Your task to perform on an android device: open app "NewsBreak: Local News & Alerts" (install if not already installed) Image 0: 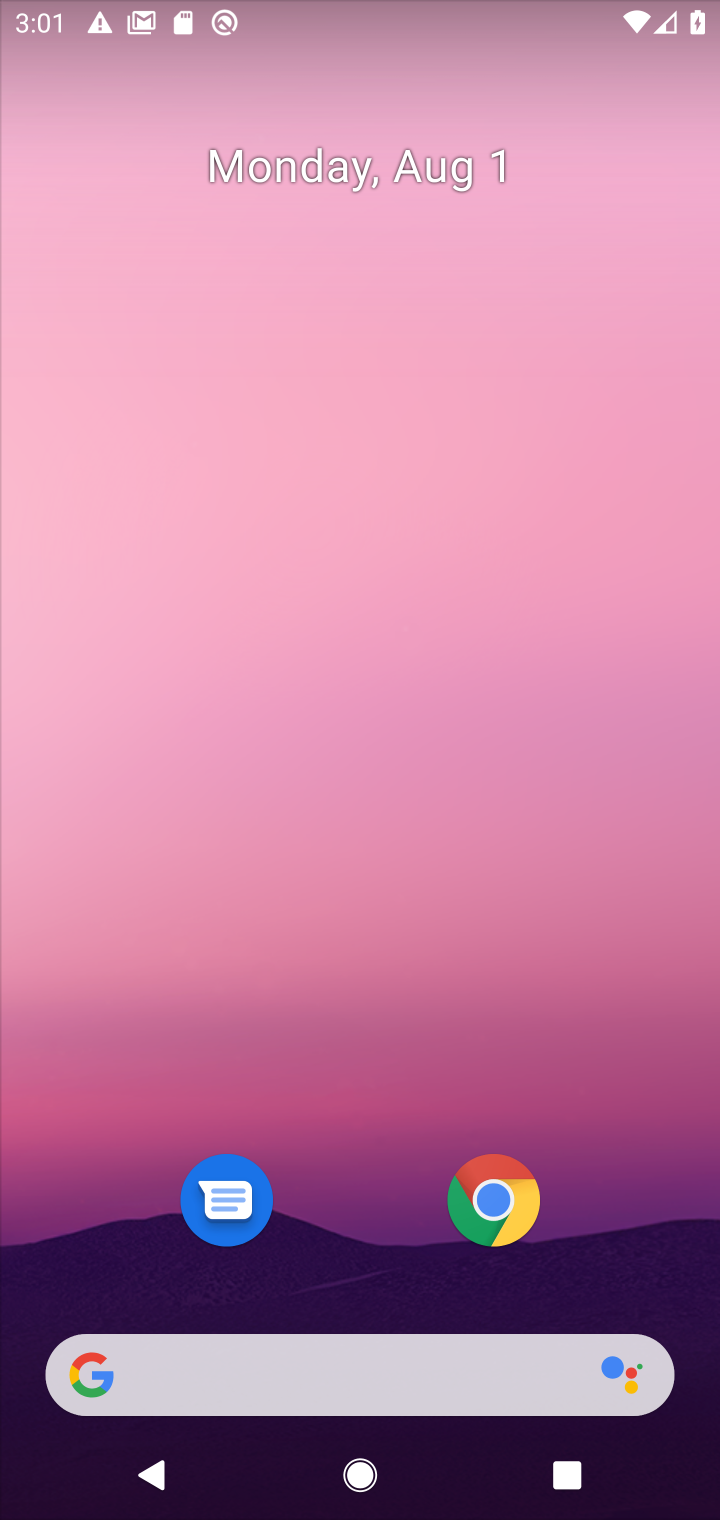
Step 0: click (45, 90)
Your task to perform on an android device: open app "NewsBreak: Local News & Alerts" (install if not already installed) Image 1: 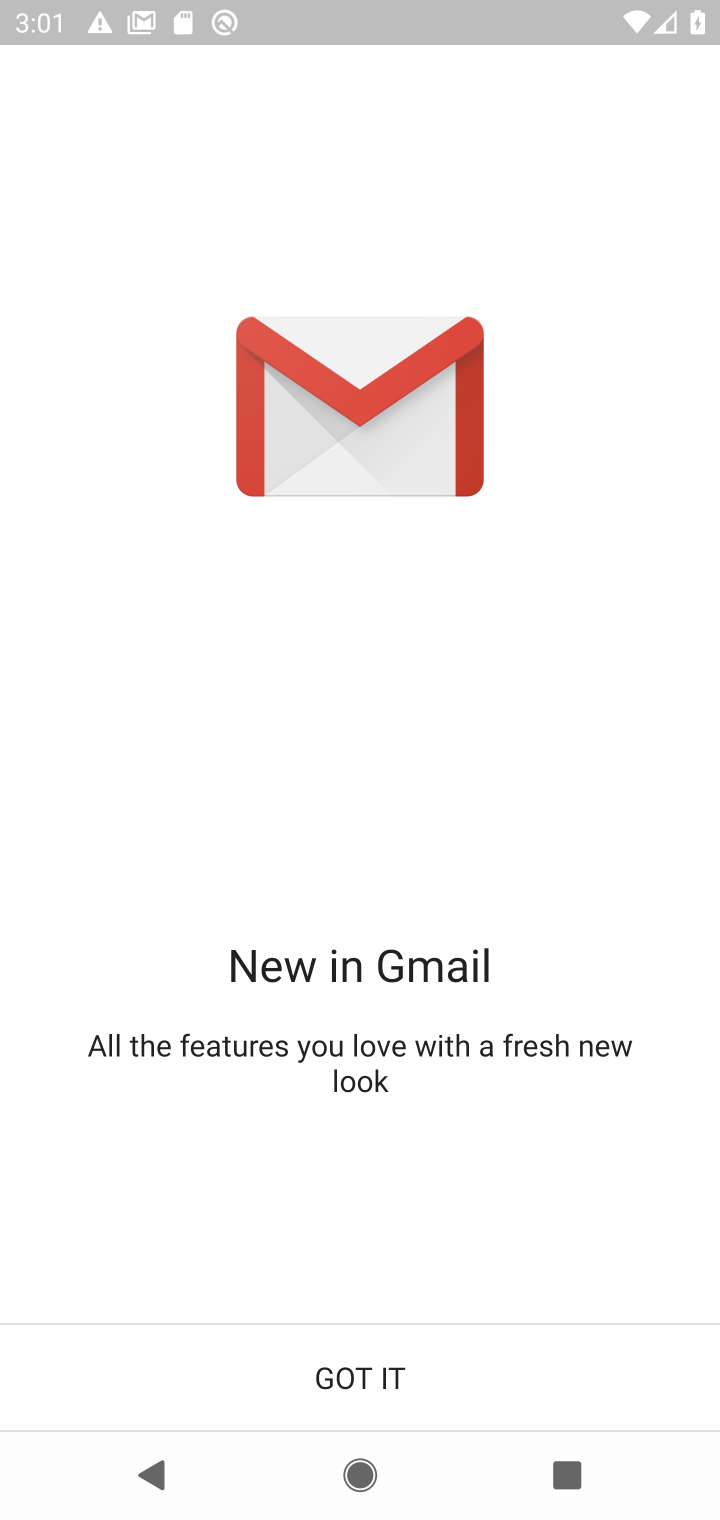
Step 1: press home button
Your task to perform on an android device: open app "NewsBreak: Local News & Alerts" (install if not already installed) Image 2: 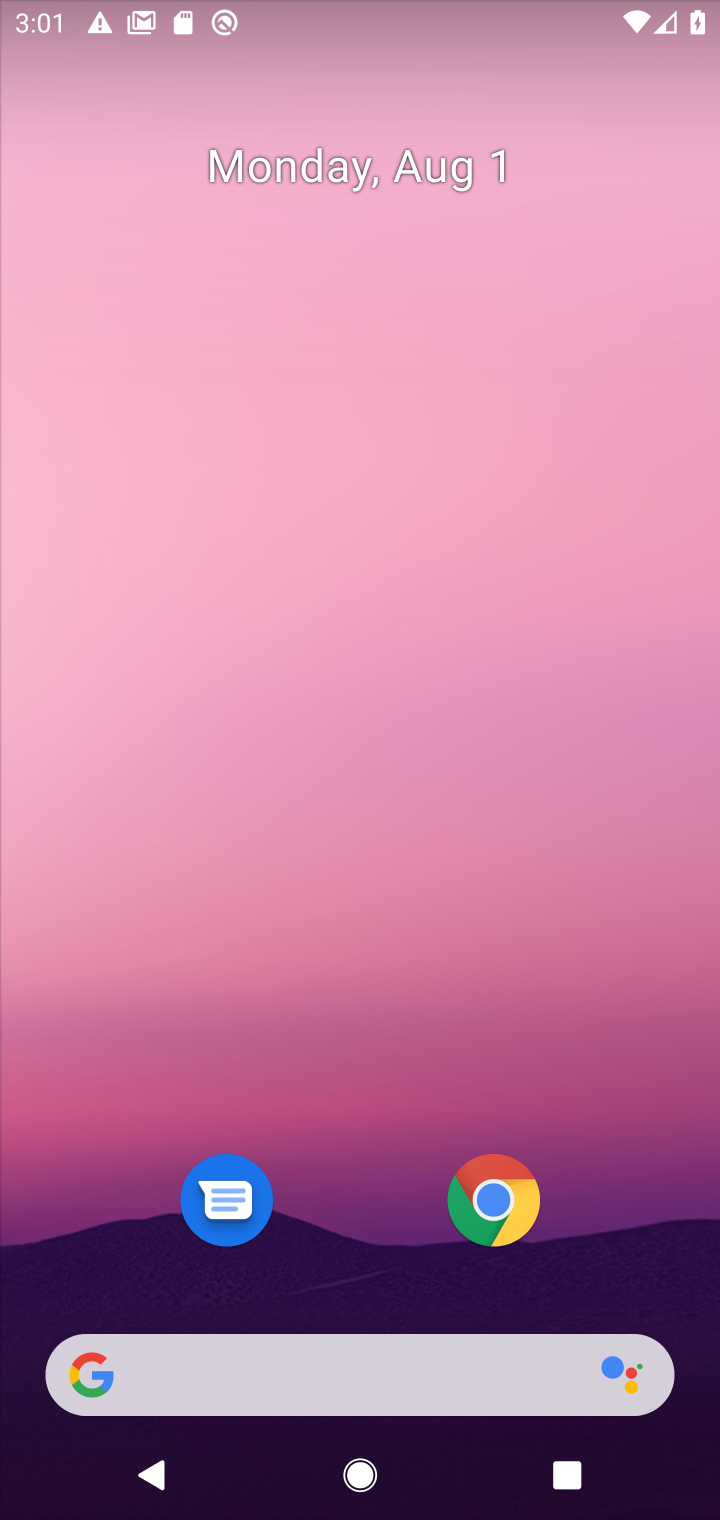
Step 2: drag from (338, 1042) to (363, 304)
Your task to perform on an android device: open app "NewsBreak: Local News & Alerts" (install if not already installed) Image 3: 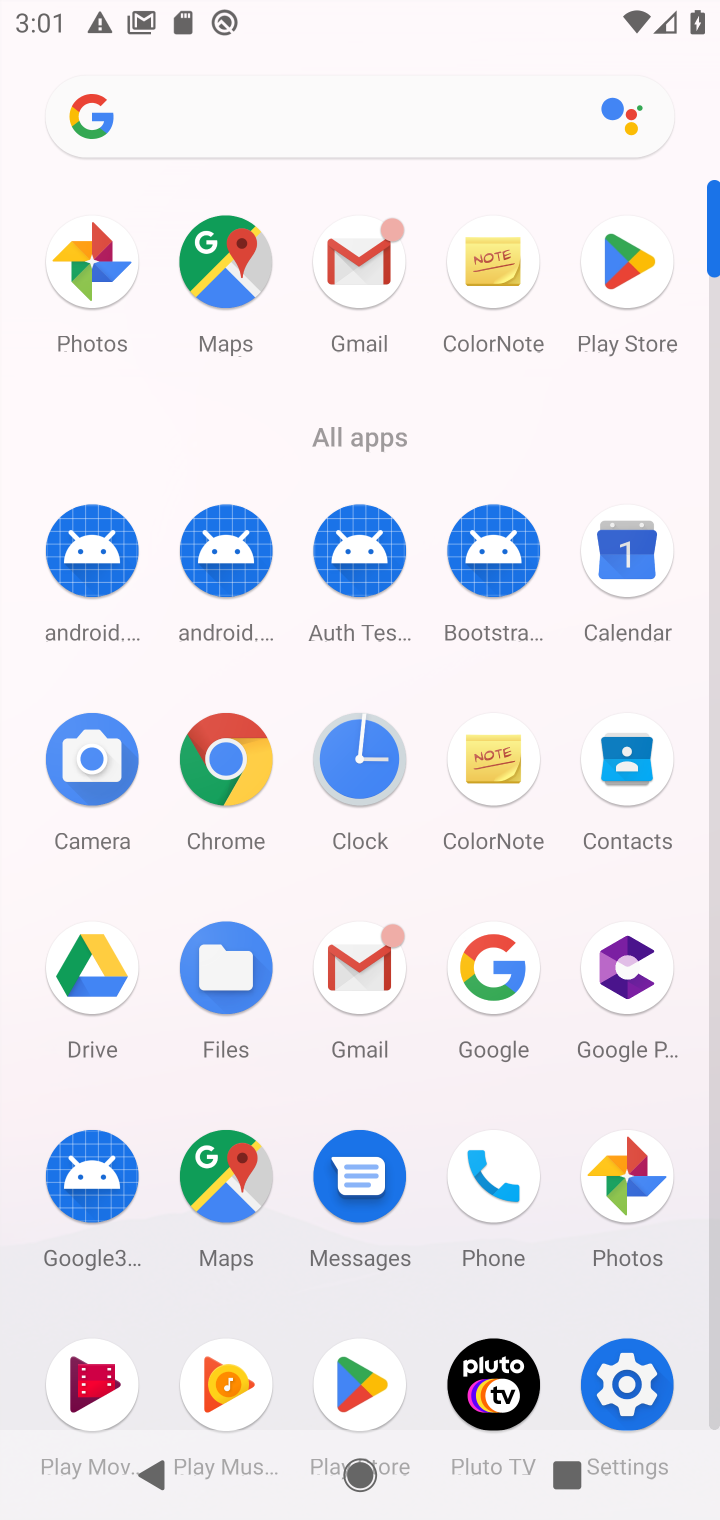
Step 3: click (636, 286)
Your task to perform on an android device: open app "NewsBreak: Local News & Alerts" (install if not already installed) Image 4: 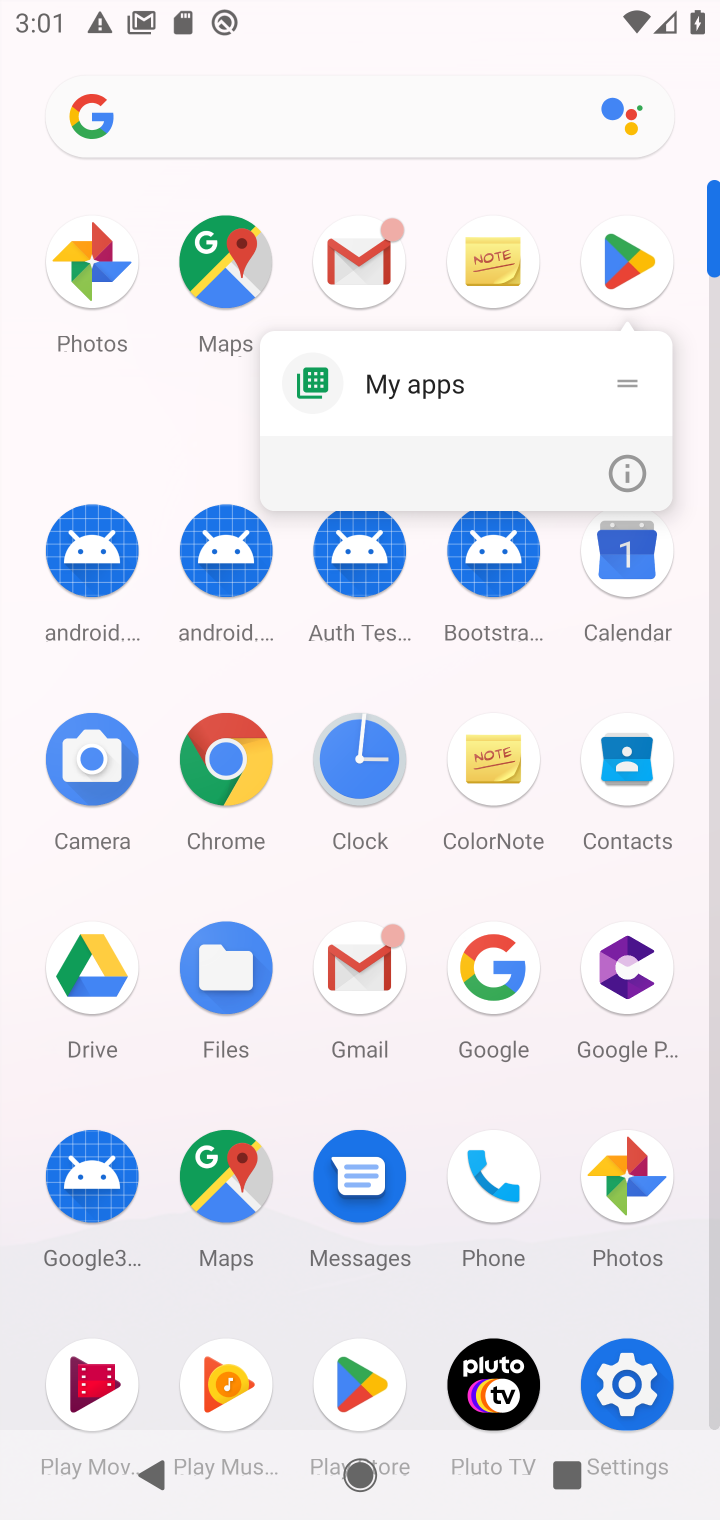
Step 4: click (638, 288)
Your task to perform on an android device: open app "NewsBreak: Local News & Alerts" (install if not already installed) Image 5: 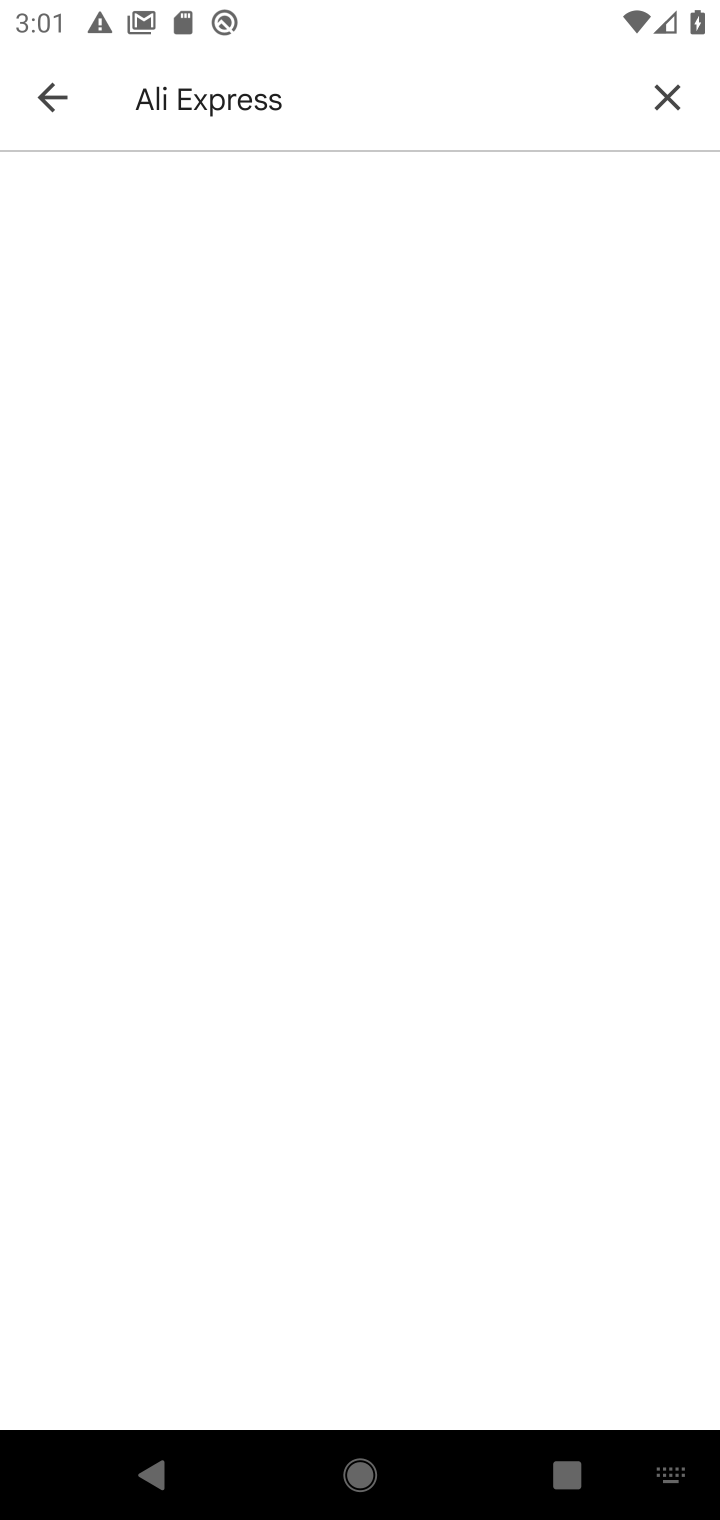
Step 5: click (363, 99)
Your task to perform on an android device: open app "NewsBreak: Local News & Alerts" (install if not already installed) Image 6: 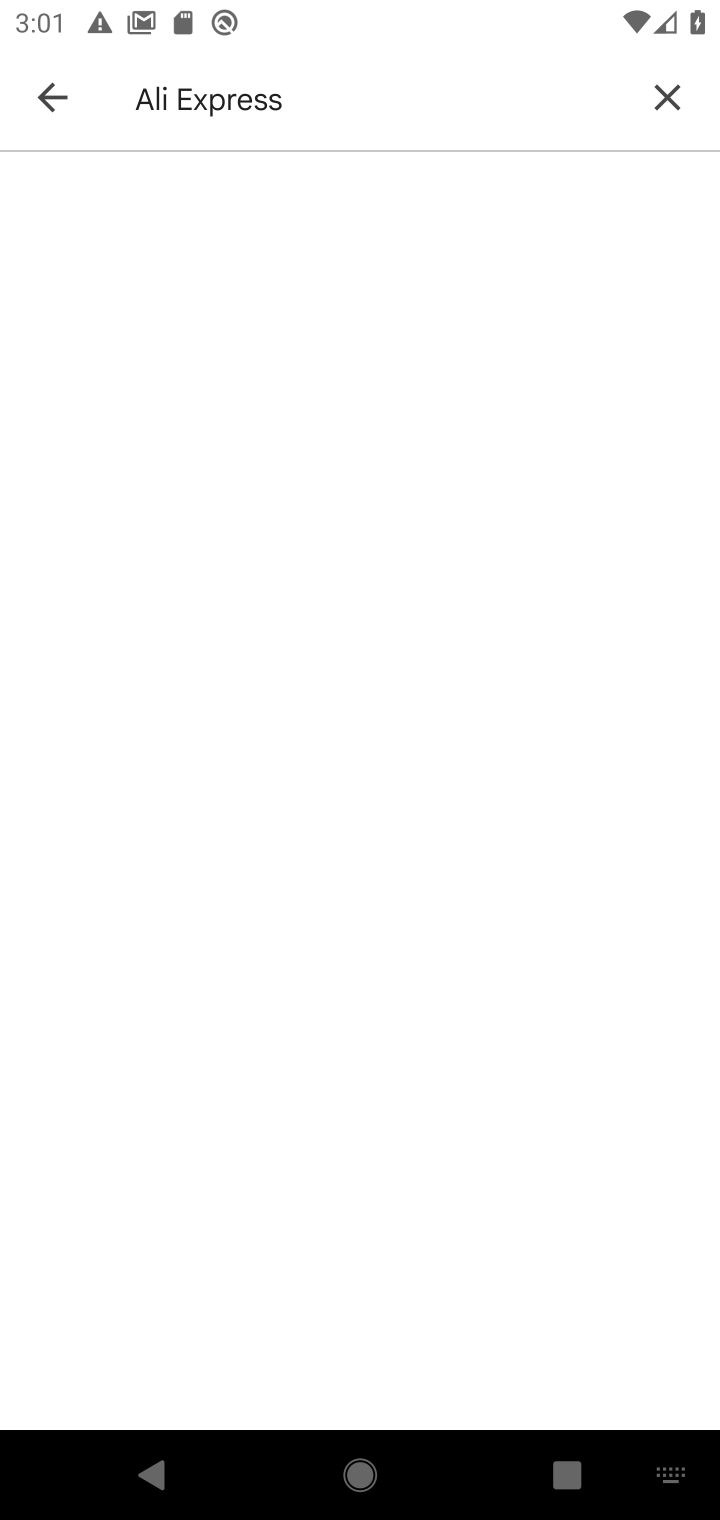
Step 6: click (665, 87)
Your task to perform on an android device: open app "NewsBreak: Local News & Alerts" (install if not already installed) Image 7: 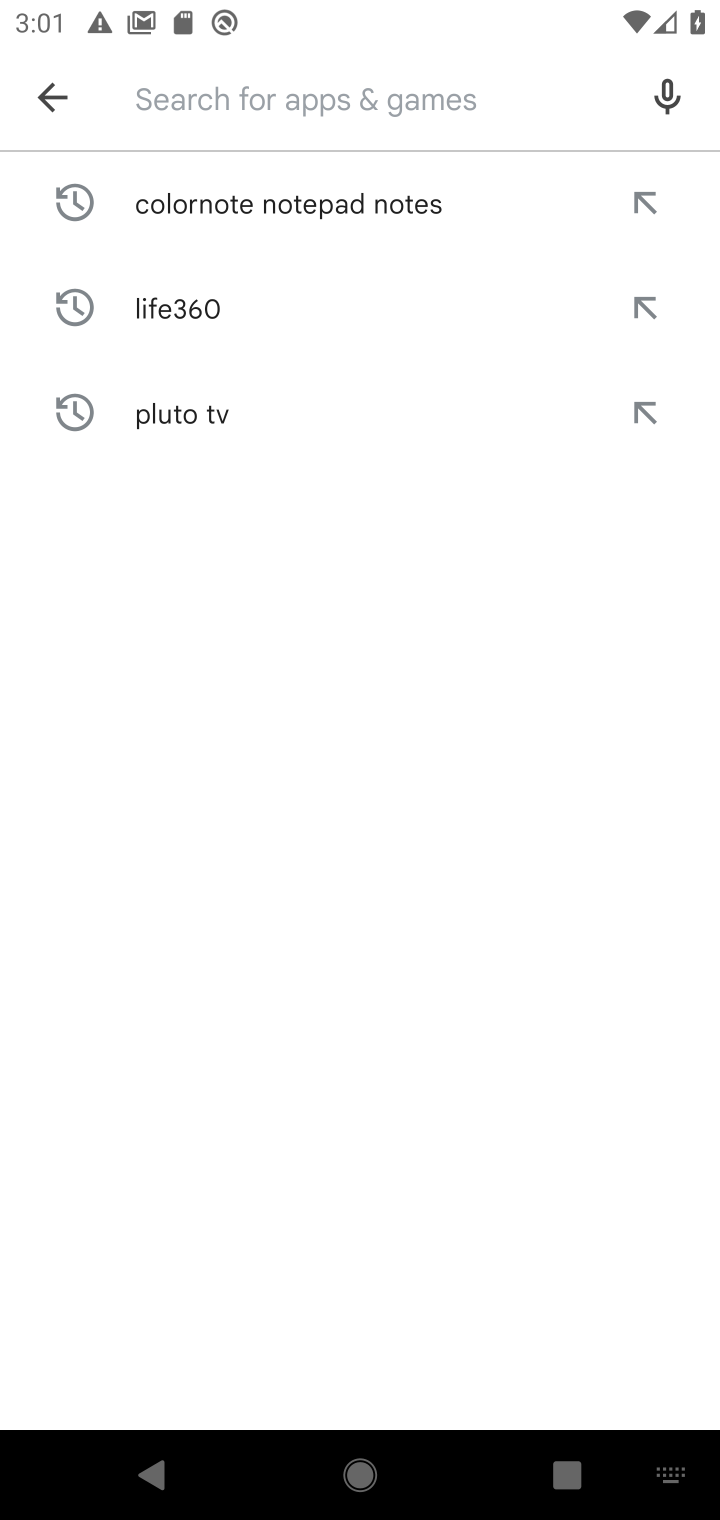
Step 7: type "newsbreak"
Your task to perform on an android device: open app "NewsBreak: Local News & Alerts" (install if not already installed) Image 8: 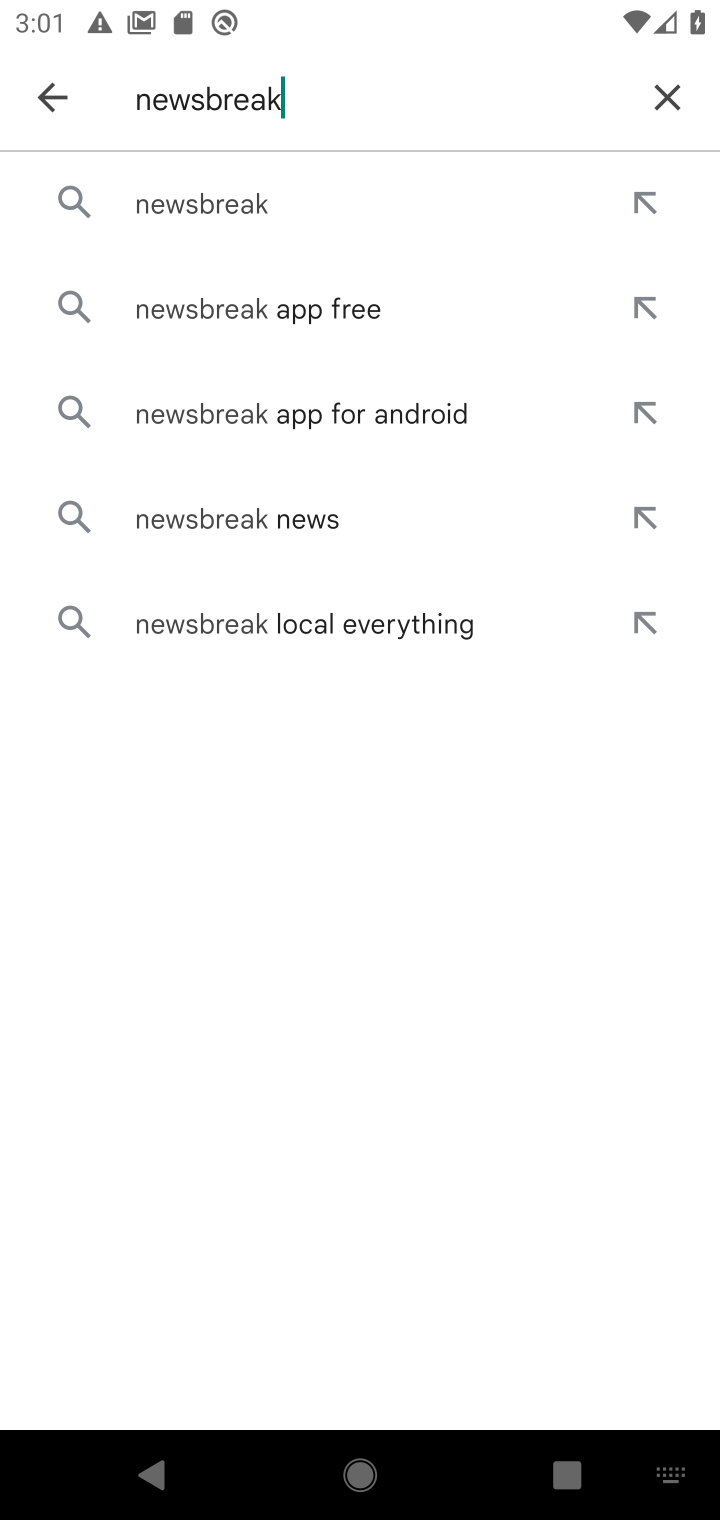
Step 8: click (217, 216)
Your task to perform on an android device: open app "NewsBreak: Local News & Alerts" (install if not already installed) Image 9: 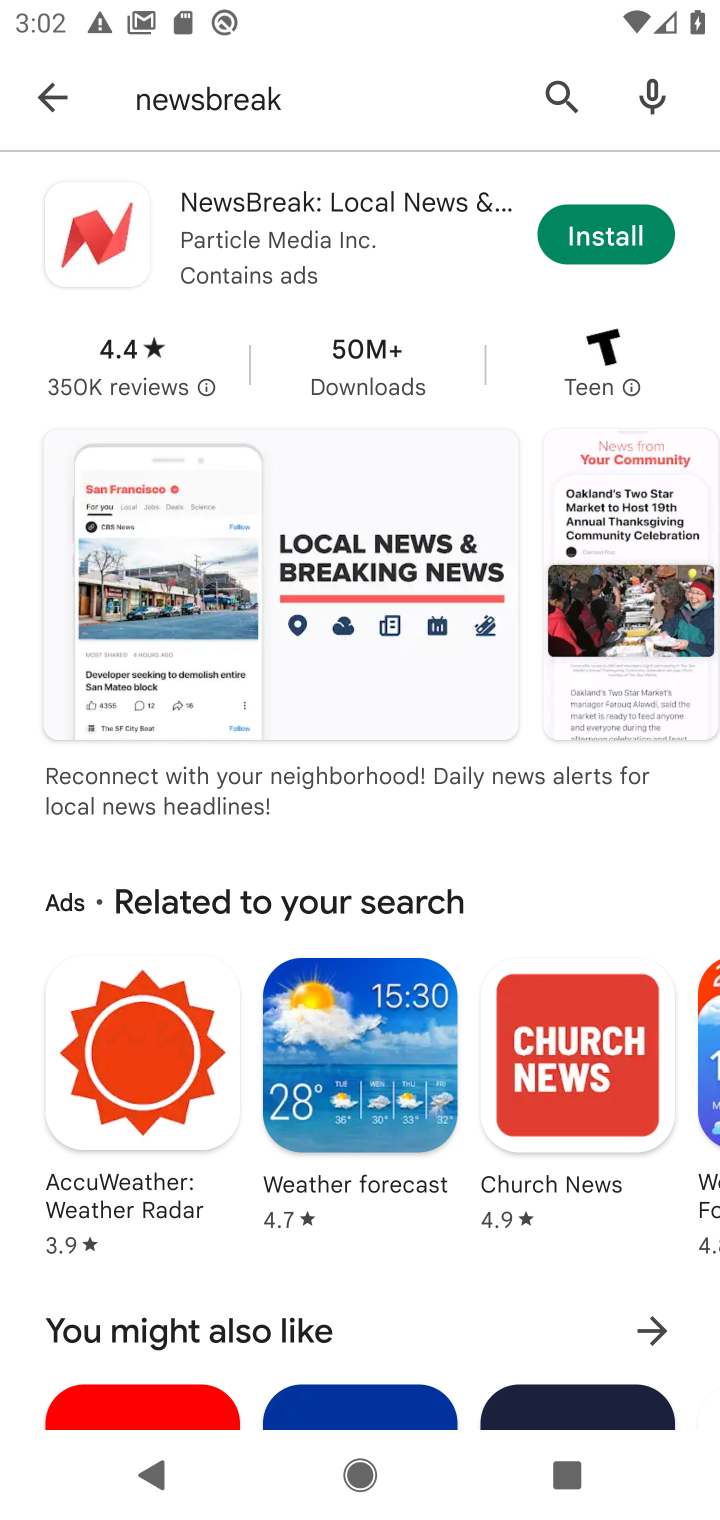
Step 9: click (624, 222)
Your task to perform on an android device: open app "NewsBreak: Local News & Alerts" (install if not already installed) Image 10: 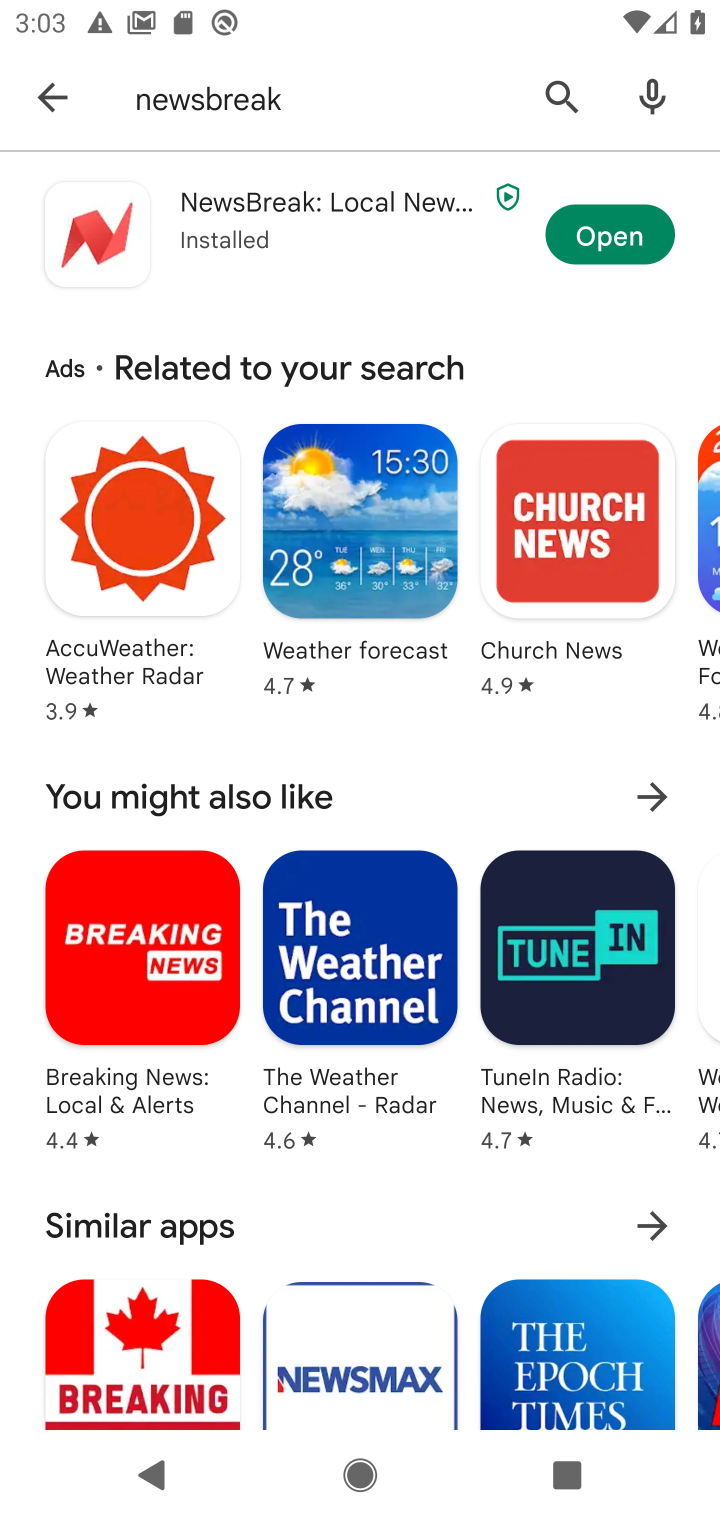
Step 10: click (601, 218)
Your task to perform on an android device: open app "NewsBreak: Local News & Alerts" (install if not already installed) Image 11: 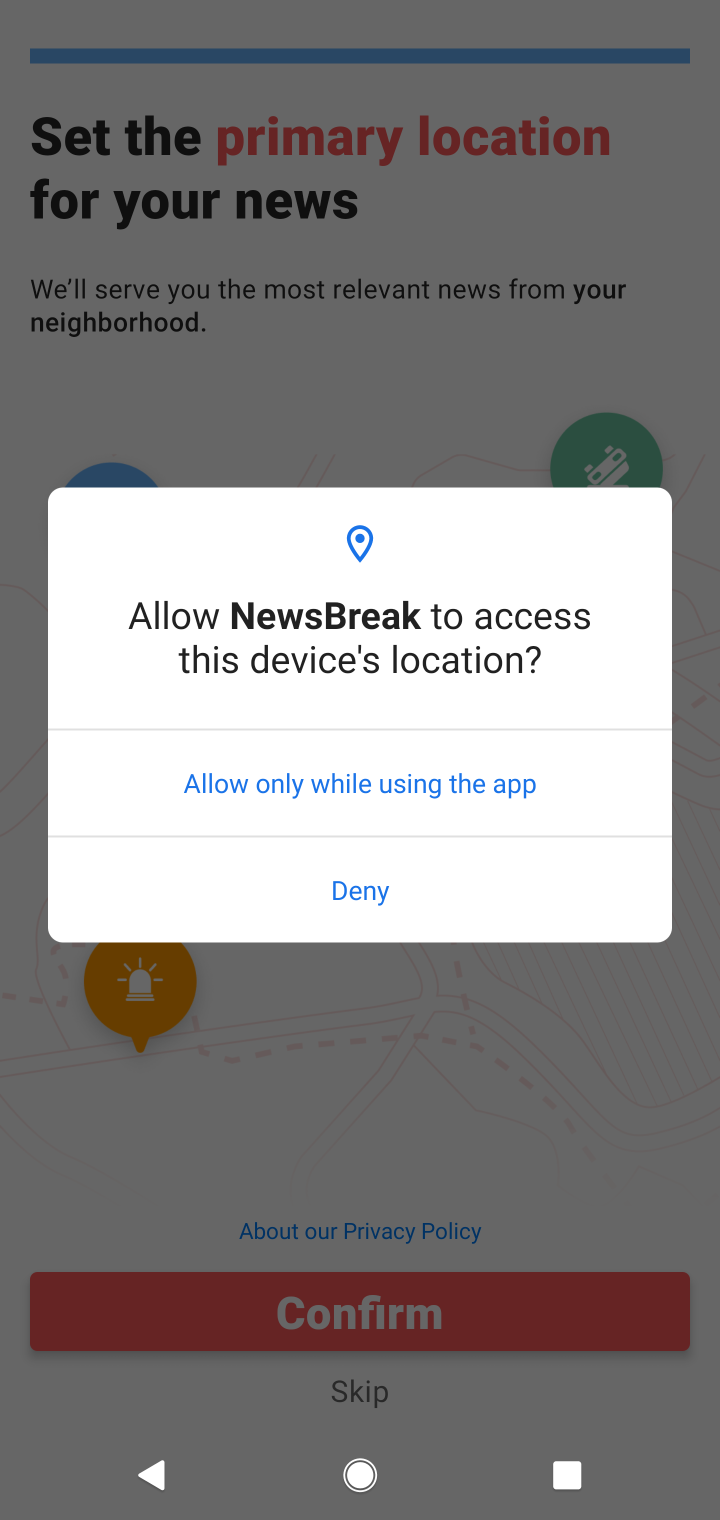
Step 11: click (400, 768)
Your task to perform on an android device: open app "NewsBreak: Local News & Alerts" (install if not already installed) Image 12: 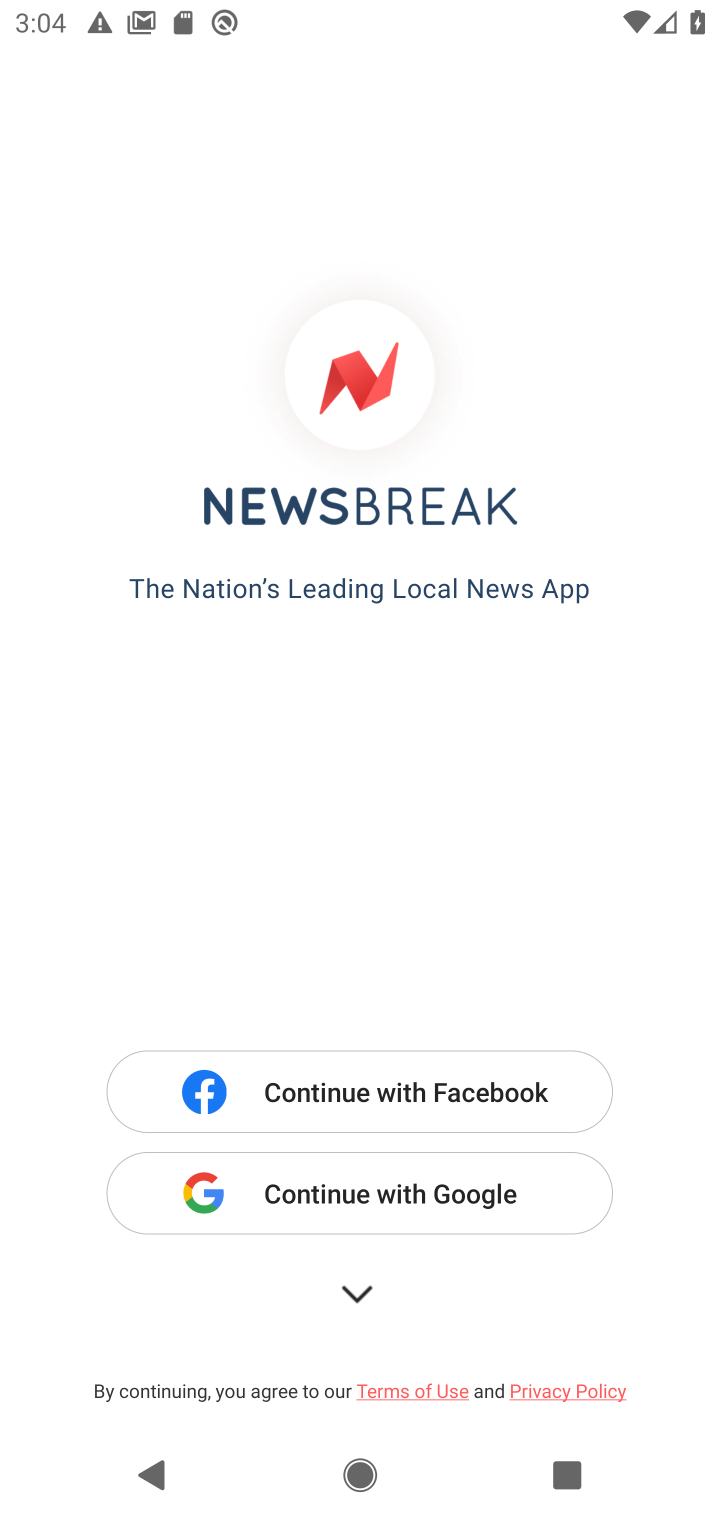
Step 12: click (406, 1202)
Your task to perform on an android device: open app "NewsBreak: Local News & Alerts" (install if not already installed) Image 13: 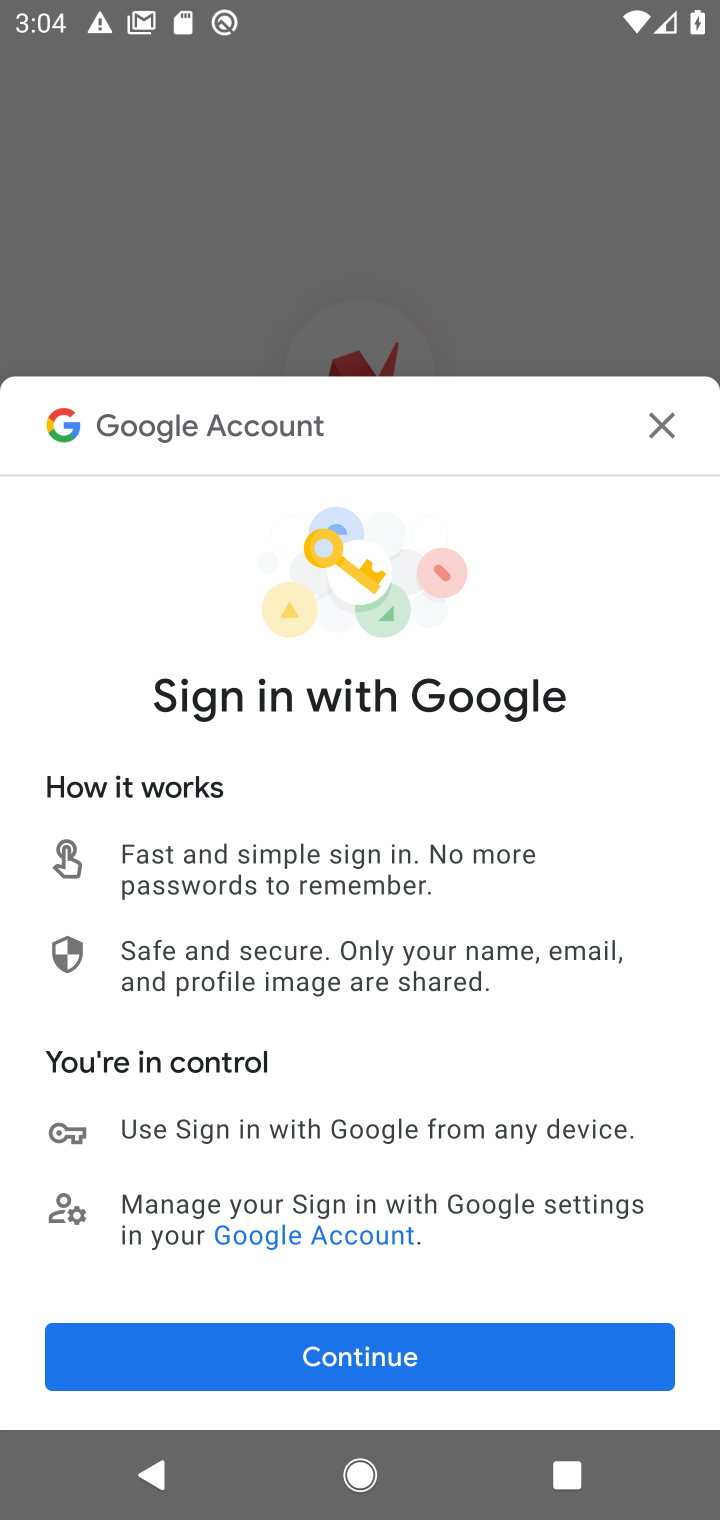
Step 13: click (396, 1342)
Your task to perform on an android device: open app "NewsBreak: Local News & Alerts" (install if not already installed) Image 14: 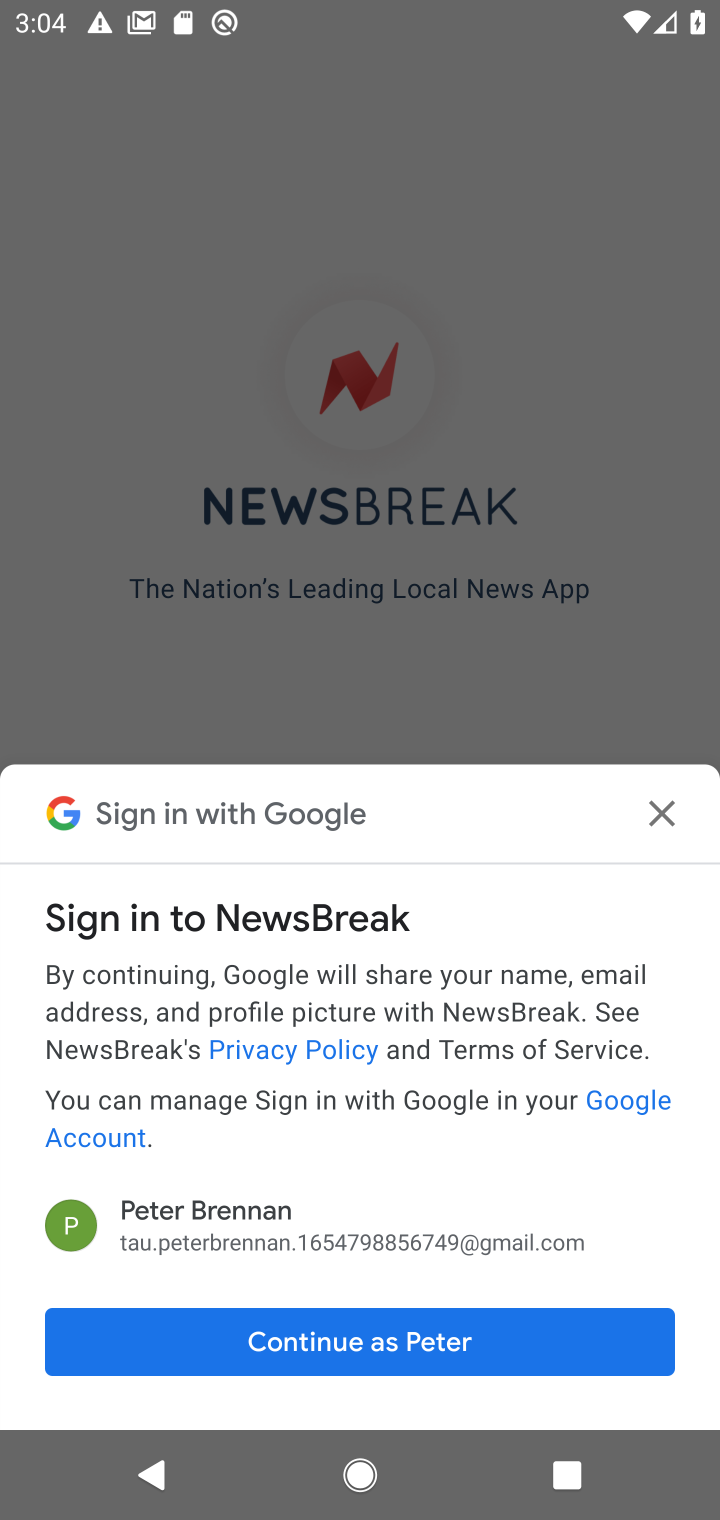
Step 14: click (400, 1325)
Your task to perform on an android device: open app "NewsBreak: Local News & Alerts" (install if not already installed) Image 15: 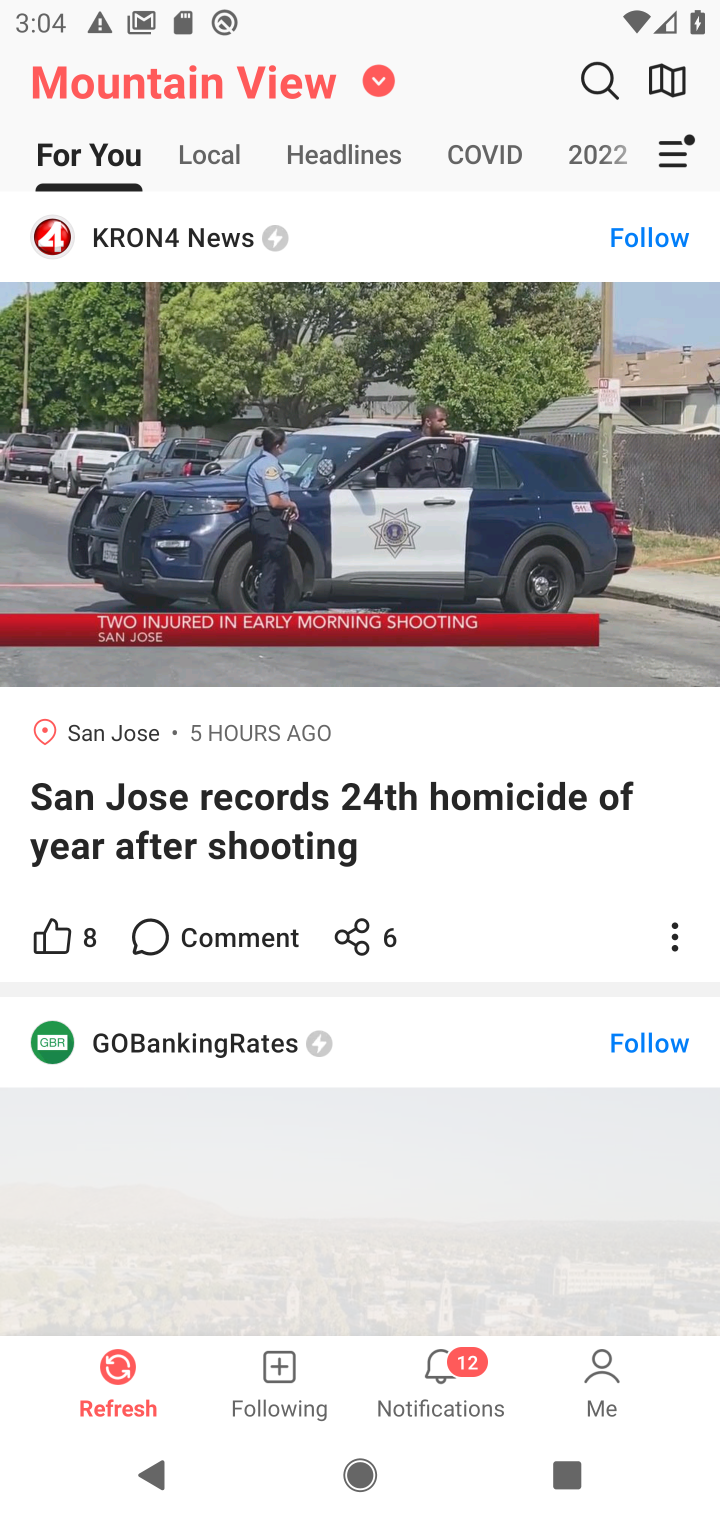
Step 15: task complete